Your task to perform on an android device: check out phone information Image 0: 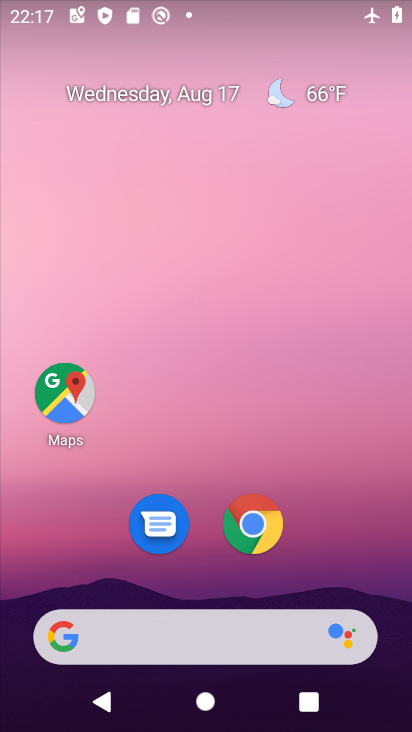
Step 0: drag from (324, 550) to (373, 0)
Your task to perform on an android device: check out phone information Image 1: 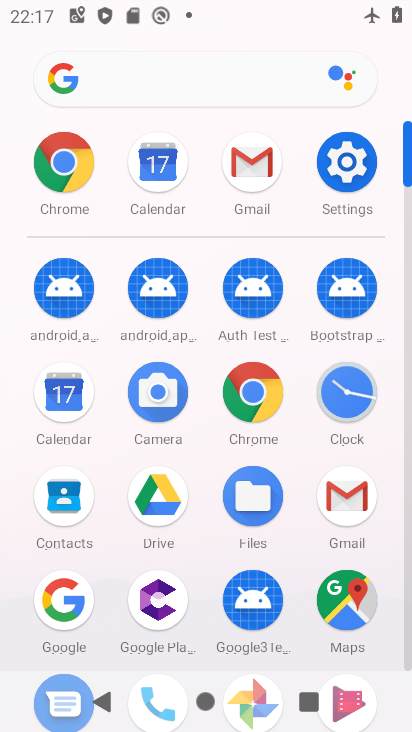
Step 1: drag from (214, 493) to (219, 124)
Your task to perform on an android device: check out phone information Image 2: 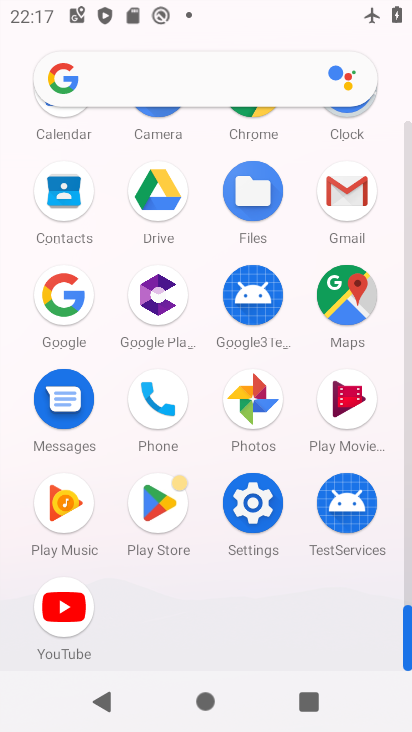
Step 2: click (159, 402)
Your task to perform on an android device: check out phone information Image 3: 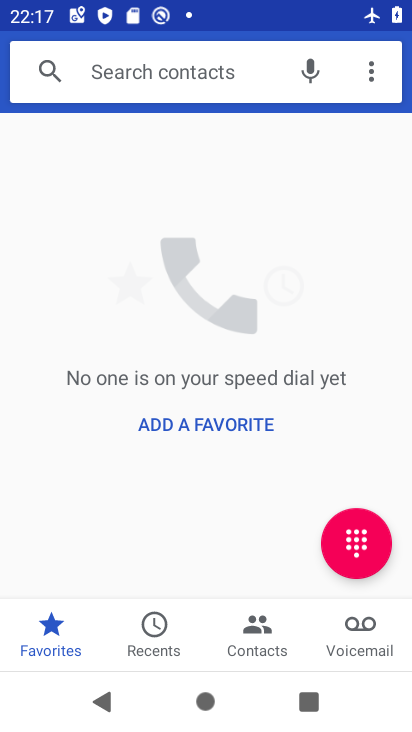
Step 3: click (372, 78)
Your task to perform on an android device: check out phone information Image 4: 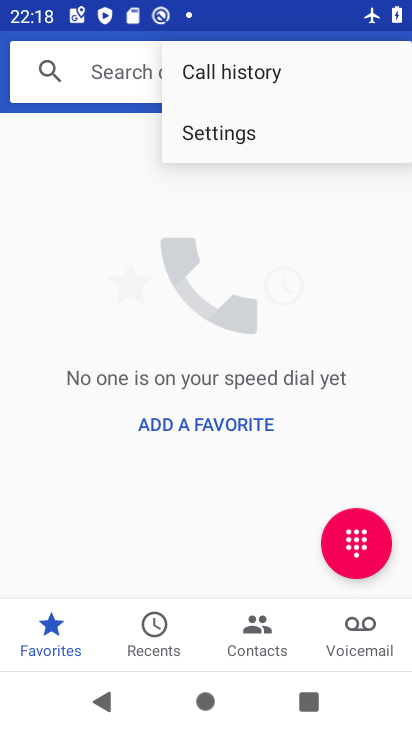
Step 4: click (263, 129)
Your task to perform on an android device: check out phone information Image 5: 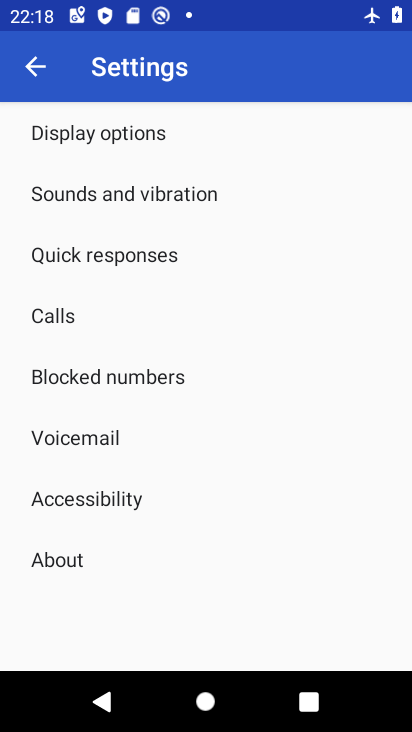
Step 5: drag from (231, 452) to (265, 123)
Your task to perform on an android device: check out phone information Image 6: 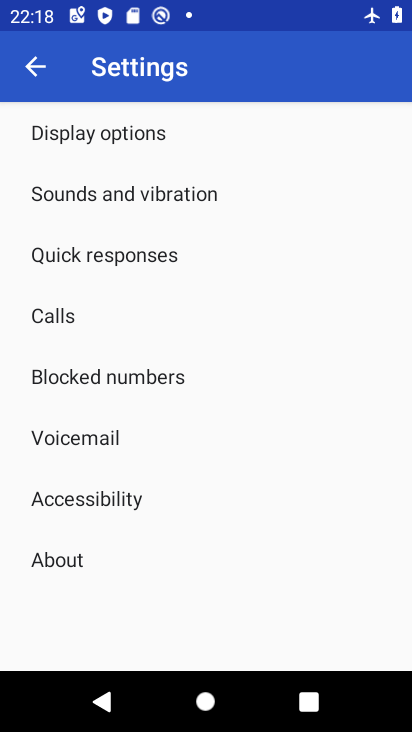
Step 6: click (68, 556)
Your task to perform on an android device: check out phone information Image 7: 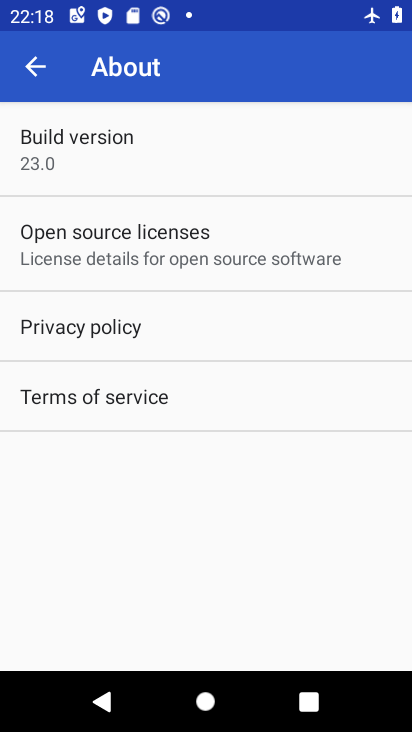
Step 7: task complete